Your task to perform on an android device: move an email to a new category in the gmail app Image 0: 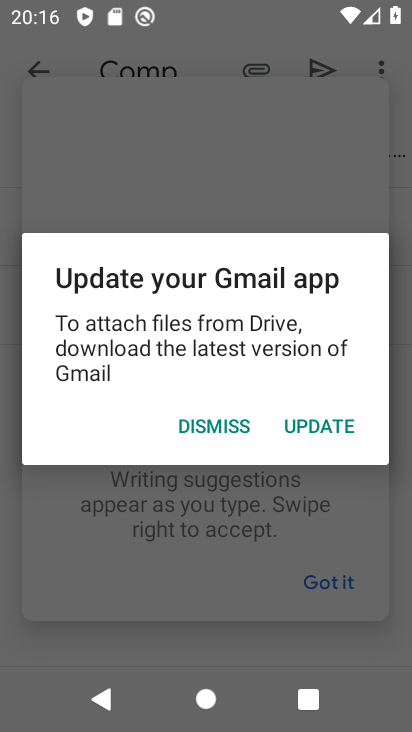
Step 0: press home button
Your task to perform on an android device: move an email to a new category in the gmail app Image 1: 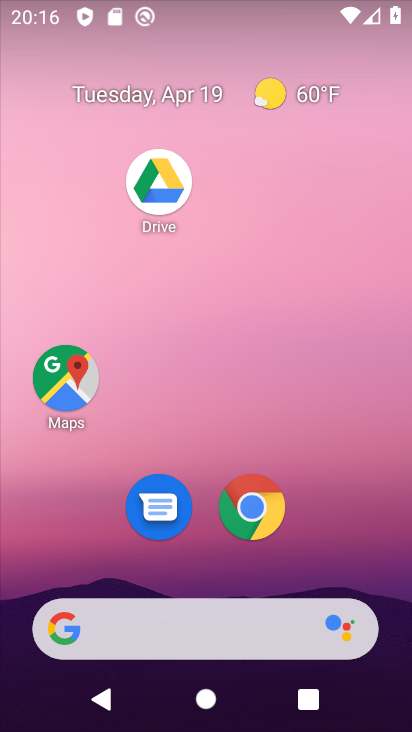
Step 1: drag from (335, 541) to (279, 133)
Your task to perform on an android device: move an email to a new category in the gmail app Image 2: 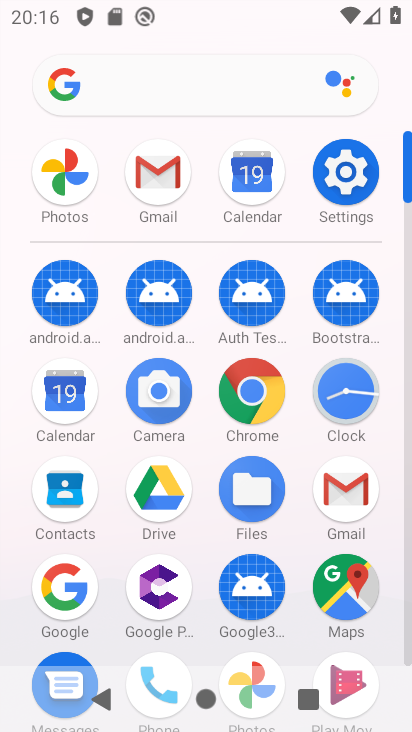
Step 2: click (141, 176)
Your task to perform on an android device: move an email to a new category in the gmail app Image 3: 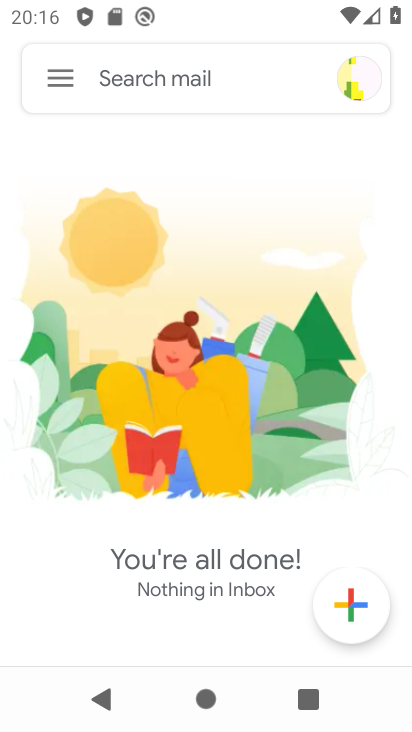
Step 3: click (62, 79)
Your task to perform on an android device: move an email to a new category in the gmail app Image 4: 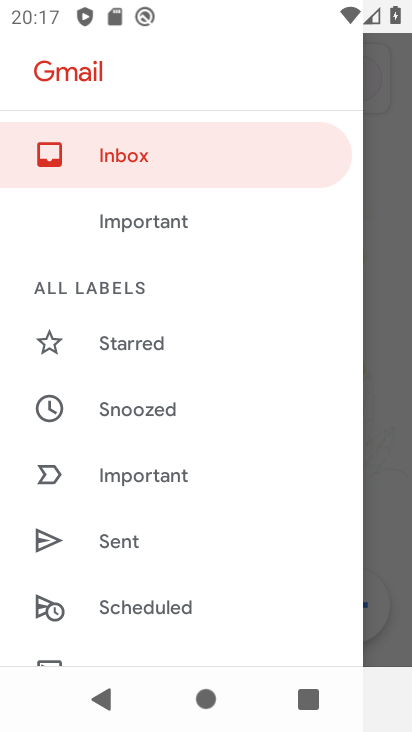
Step 4: drag from (245, 514) to (210, 215)
Your task to perform on an android device: move an email to a new category in the gmail app Image 5: 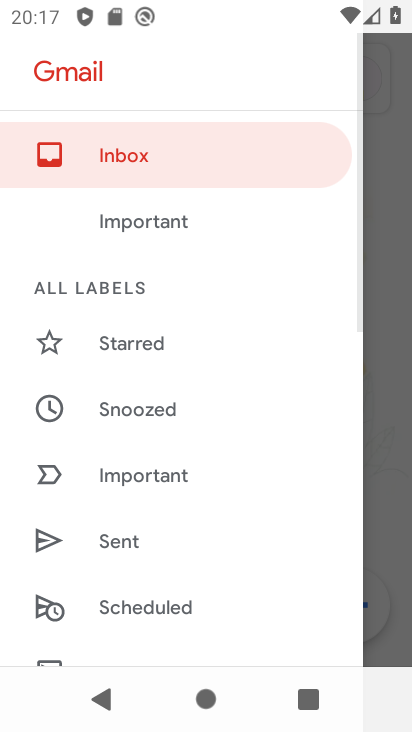
Step 5: drag from (140, 516) to (161, 269)
Your task to perform on an android device: move an email to a new category in the gmail app Image 6: 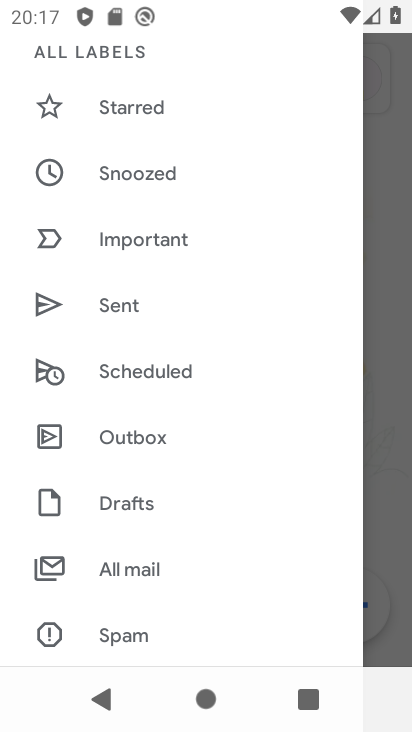
Step 6: click (190, 565)
Your task to perform on an android device: move an email to a new category in the gmail app Image 7: 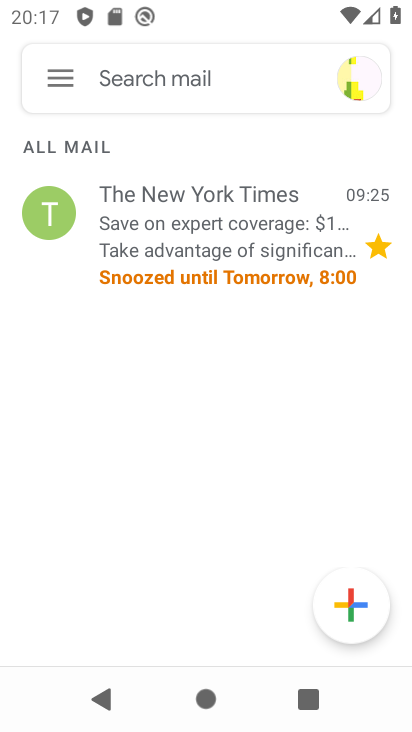
Step 7: click (243, 220)
Your task to perform on an android device: move an email to a new category in the gmail app Image 8: 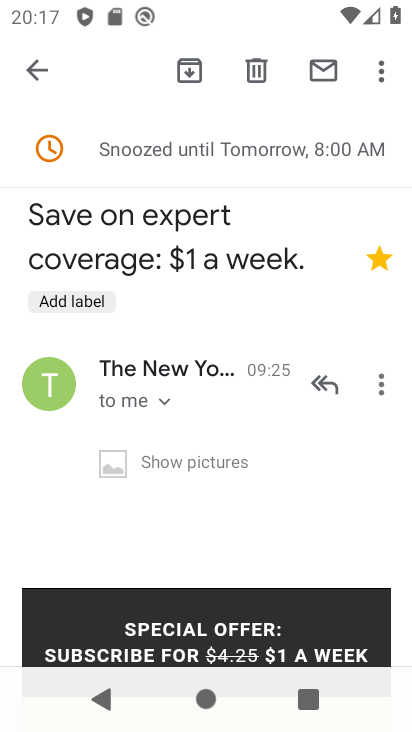
Step 8: click (379, 67)
Your task to perform on an android device: move an email to a new category in the gmail app Image 9: 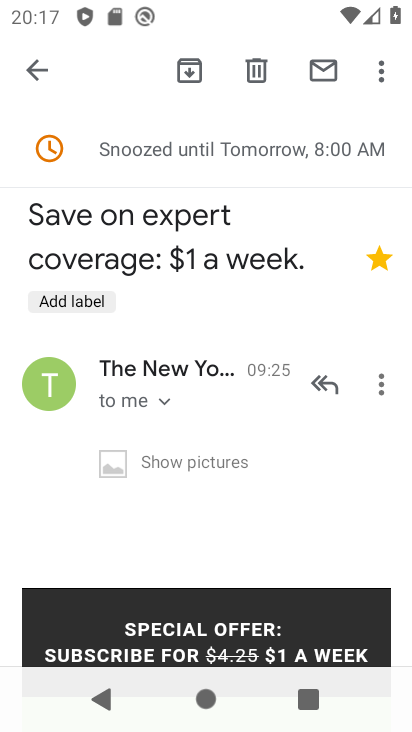
Step 9: click (379, 67)
Your task to perform on an android device: move an email to a new category in the gmail app Image 10: 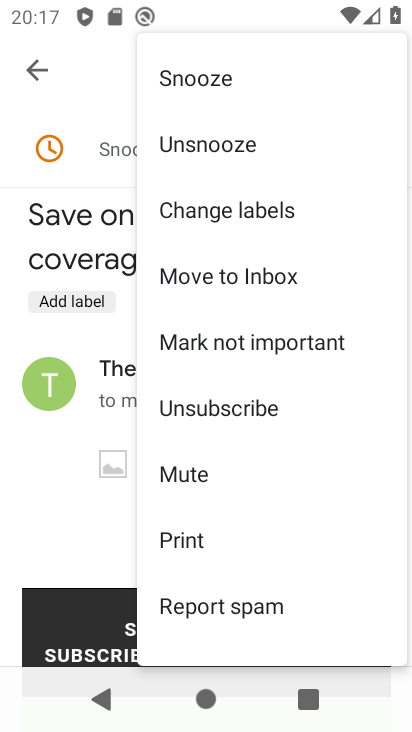
Step 10: click (324, 208)
Your task to perform on an android device: move an email to a new category in the gmail app Image 11: 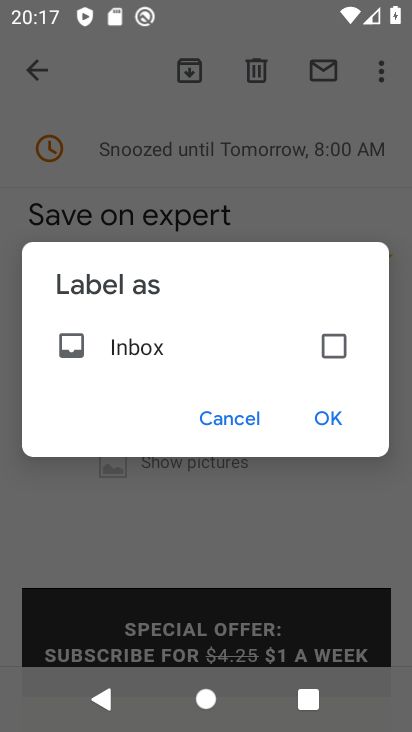
Step 11: click (342, 343)
Your task to perform on an android device: move an email to a new category in the gmail app Image 12: 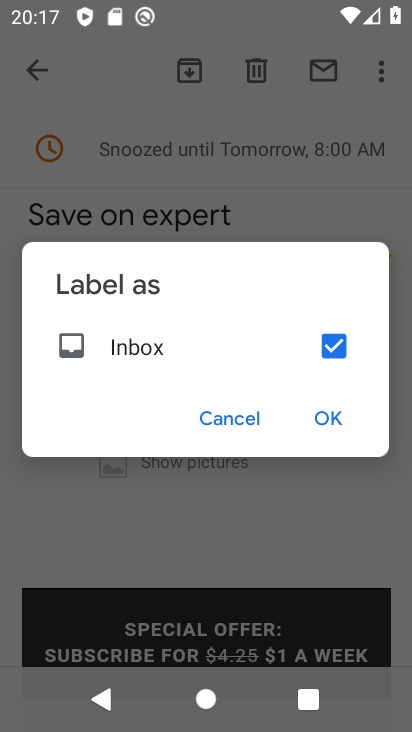
Step 12: click (331, 412)
Your task to perform on an android device: move an email to a new category in the gmail app Image 13: 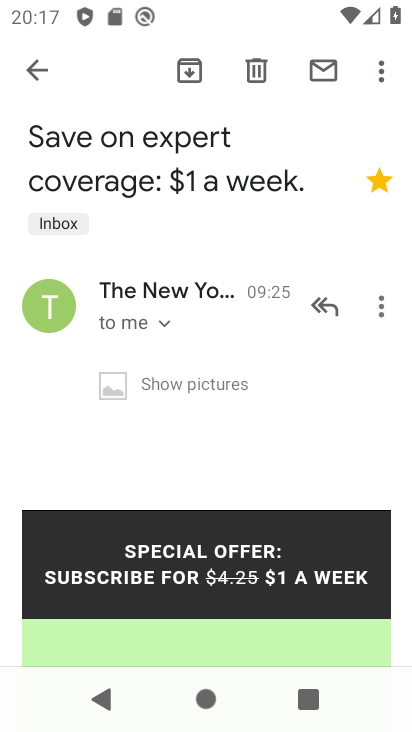
Step 13: task complete